Your task to perform on an android device: change alarm snooze length Image 0: 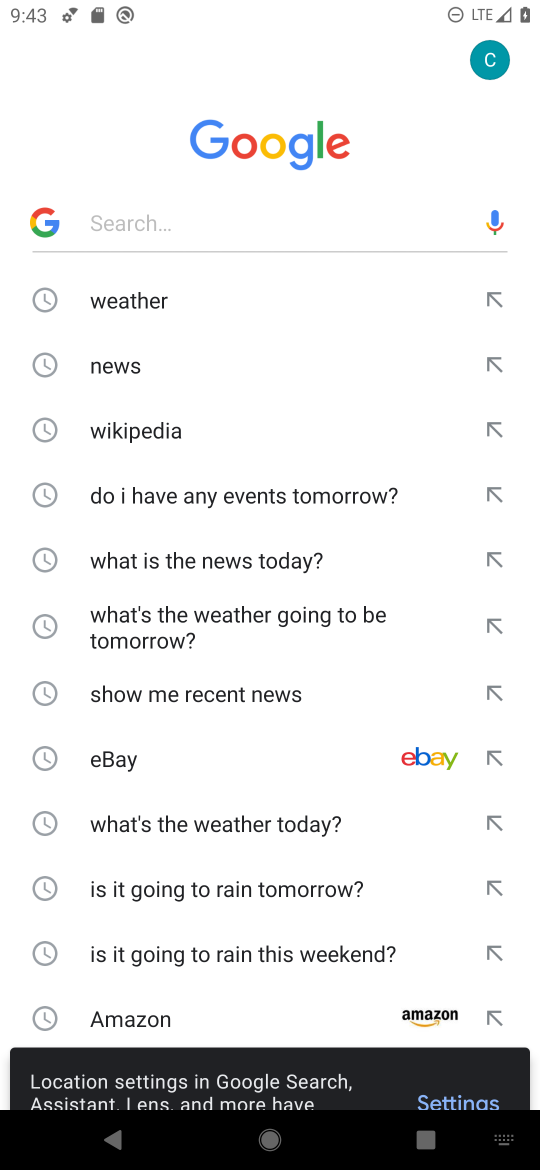
Step 0: press home button
Your task to perform on an android device: change alarm snooze length Image 1: 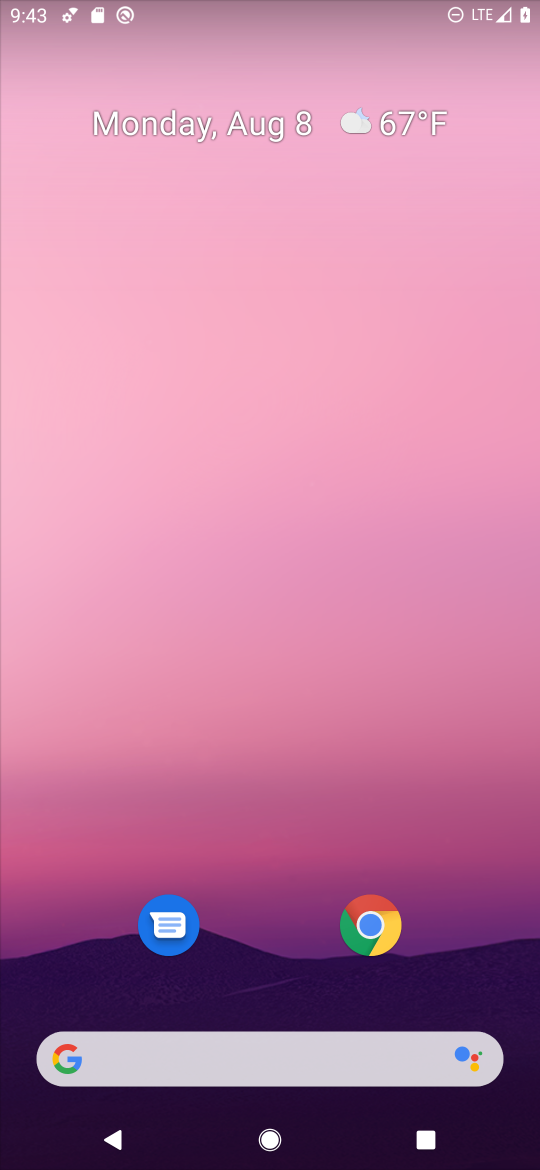
Step 1: drag from (276, 837) to (406, 121)
Your task to perform on an android device: change alarm snooze length Image 2: 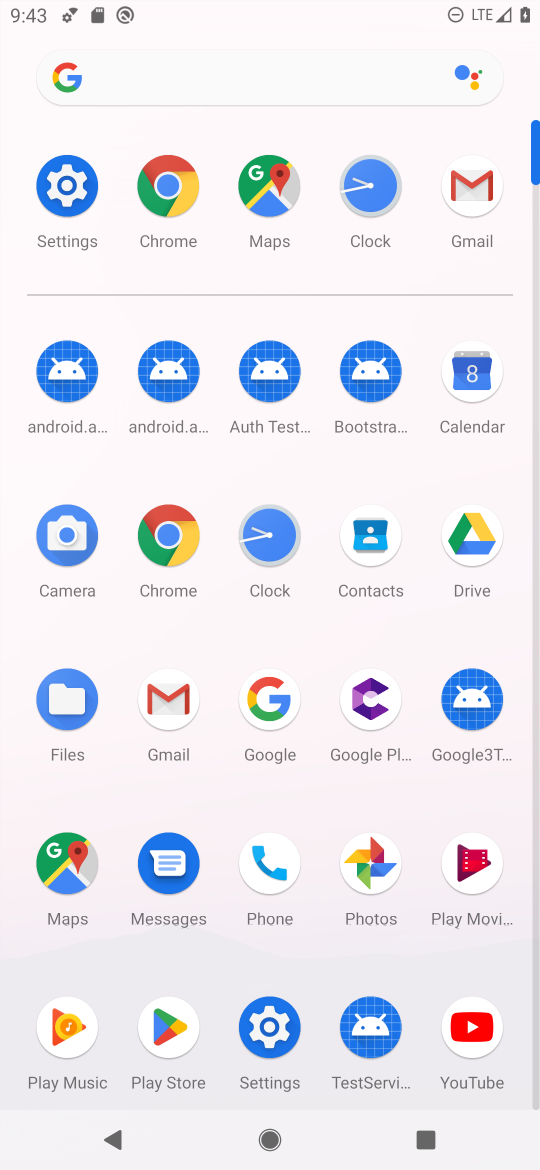
Step 2: click (277, 534)
Your task to perform on an android device: change alarm snooze length Image 3: 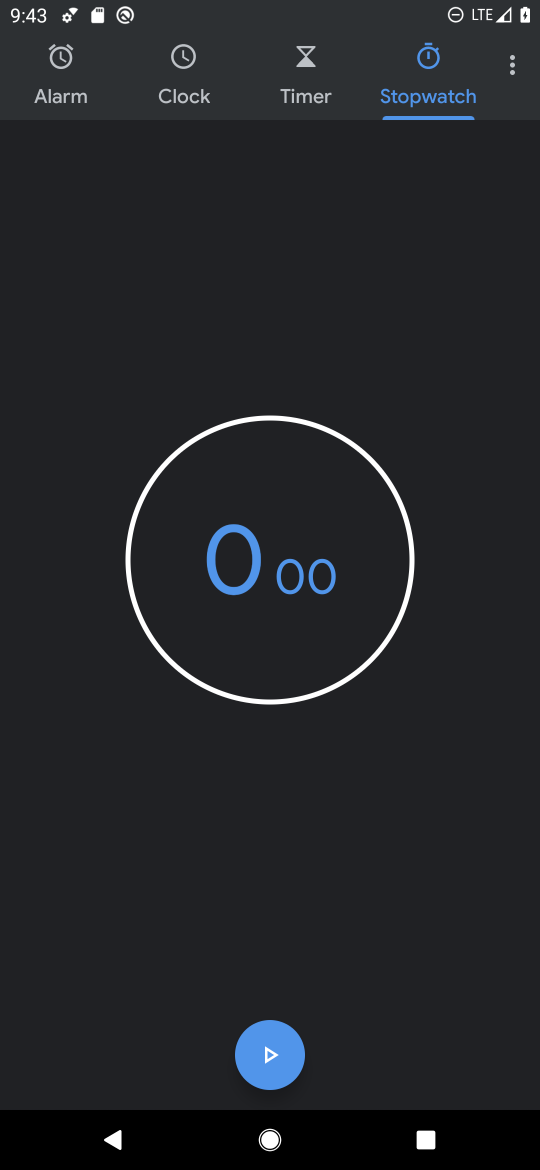
Step 3: click (513, 56)
Your task to perform on an android device: change alarm snooze length Image 4: 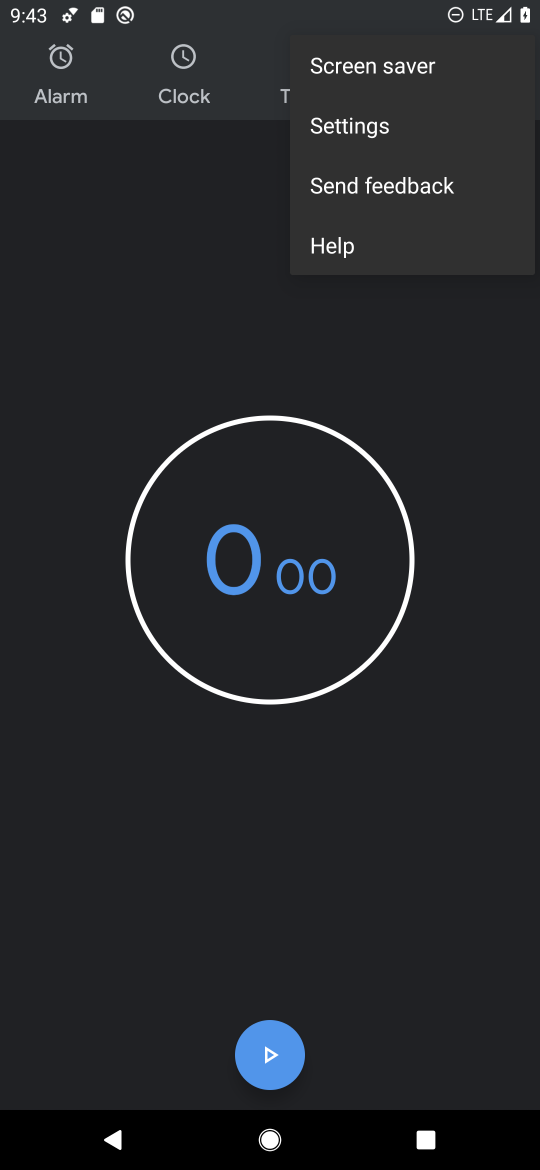
Step 4: click (373, 142)
Your task to perform on an android device: change alarm snooze length Image 5: 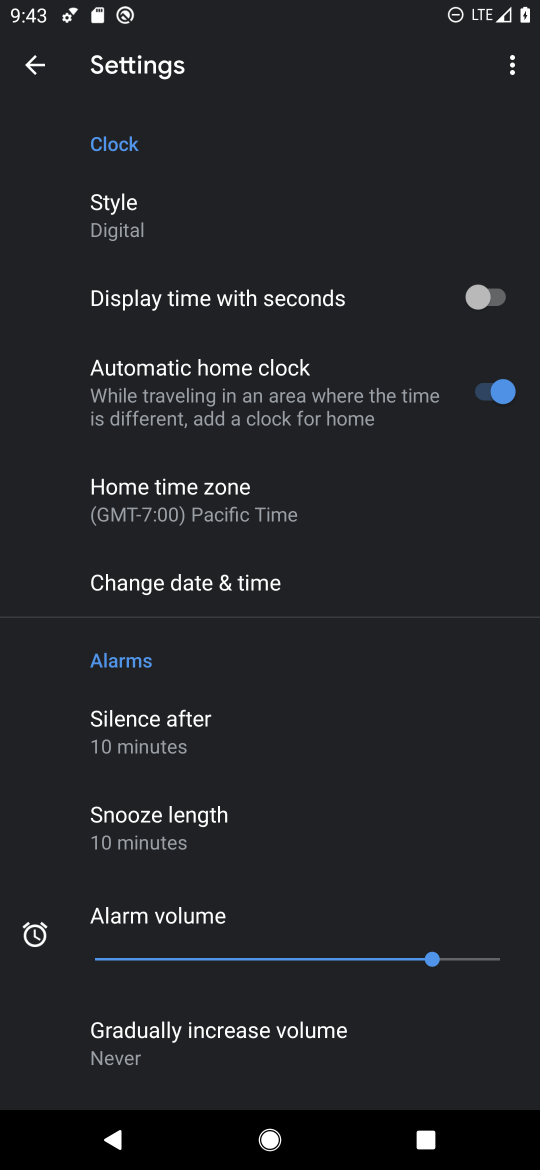
Step 5: click (146, 830)
Your task to perform on an android device: change alarm snooze length Image 6: 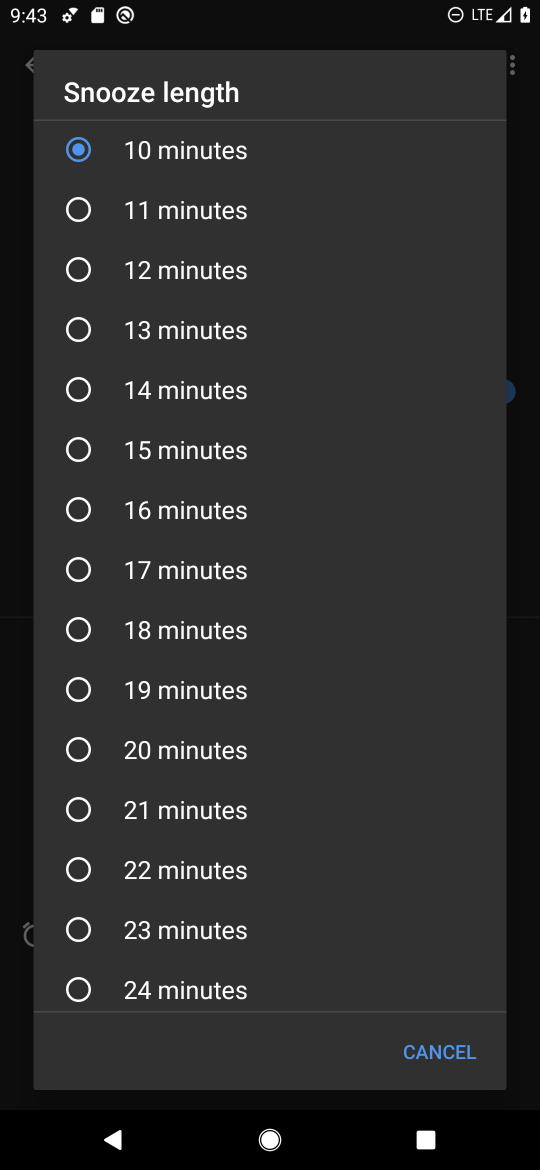
Step 6: click (143, 216)
Your task to perform on an android device: change alarm snooze length Image 7: 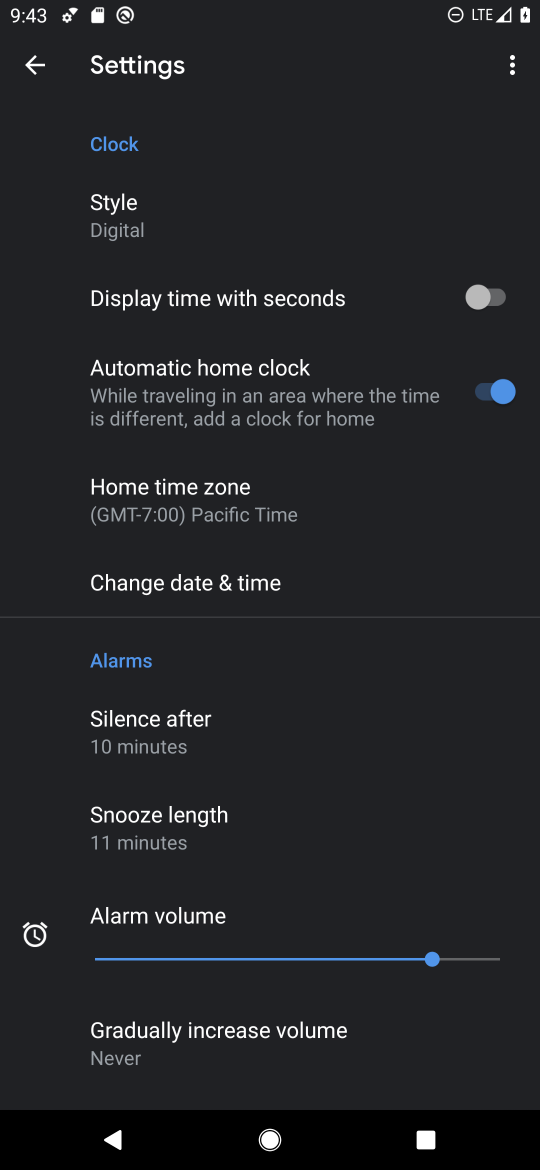
Step 7: task complete